Your task to perform on an android device: Is it going to rain tomorrow? Image 0: 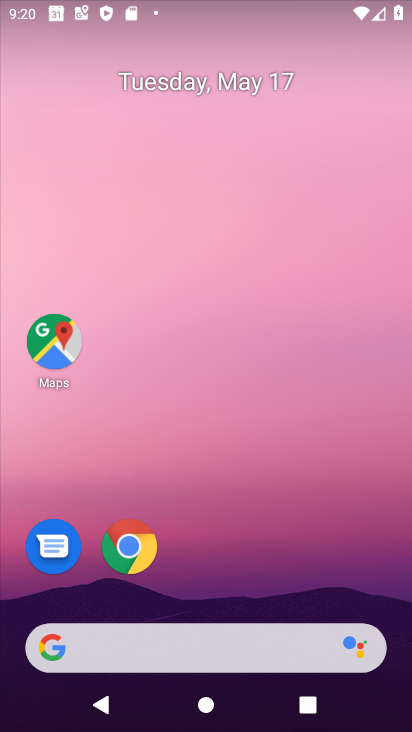
Step 0: click (144, 646)
Your task to perform on an android device: Is it going to rain tomorrow? Image 1: 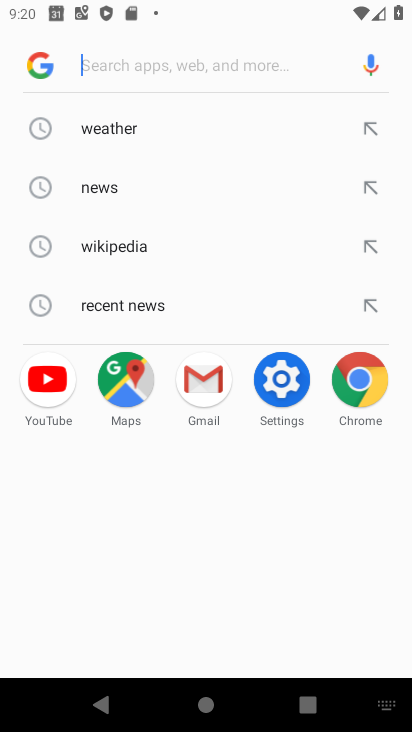
Step 1: type "is it going to rain tomorrow"
Your task to perform on an android device: Is it going to rain tomorrow? Image 2: 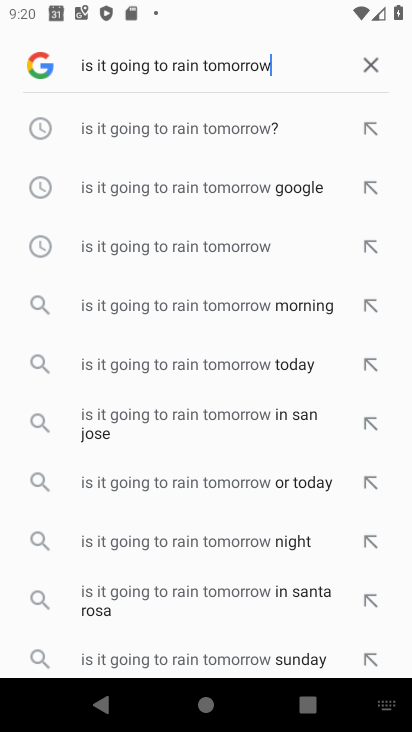
Step 2: click (209, 123)
Your task to perform on an android device: Is it going to rain tomorrow? Image 3: 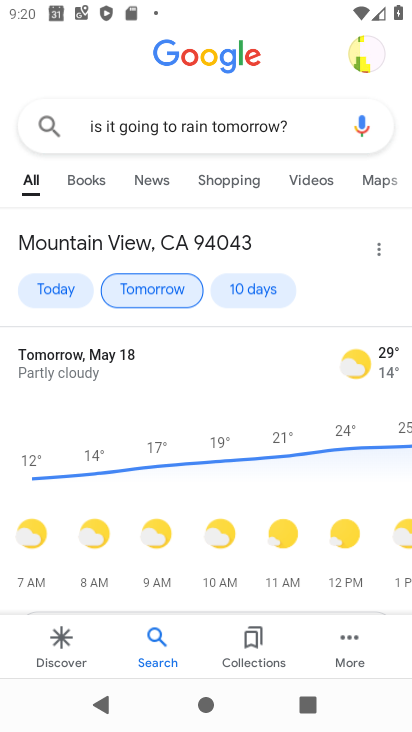
Step 3: task complete